Your task to perform on an android device: allow notifications from all sites in the chrome app Image 0: 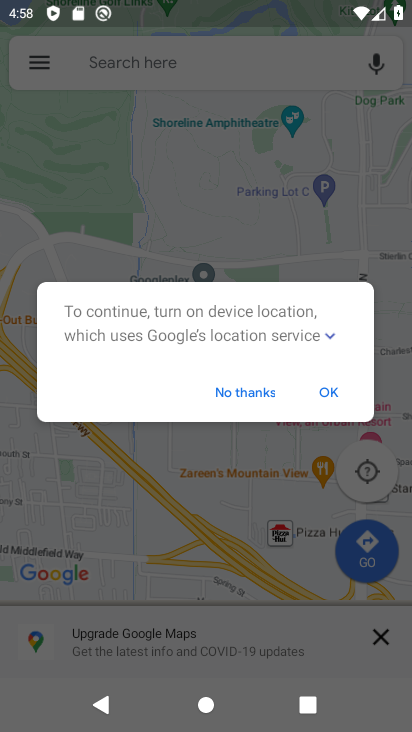
Step 0: press home button
Your task to perform on an android device: allow notifications from all sites in the chrome app Image 1: 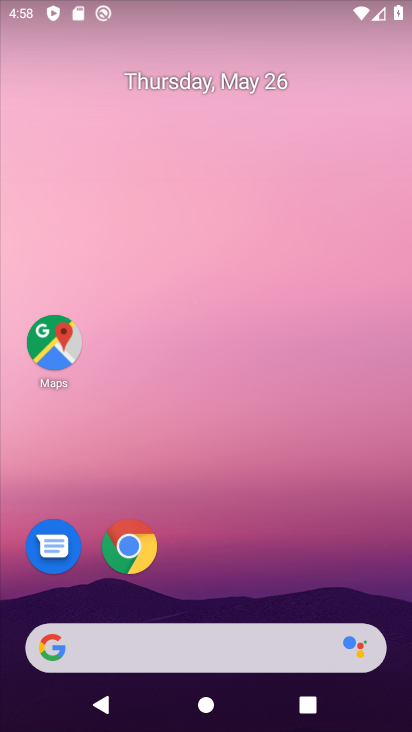
Step 1: click (141, 557)
Your task to perform on an android device: allow notifications from all sites in the chrome app Image 2: 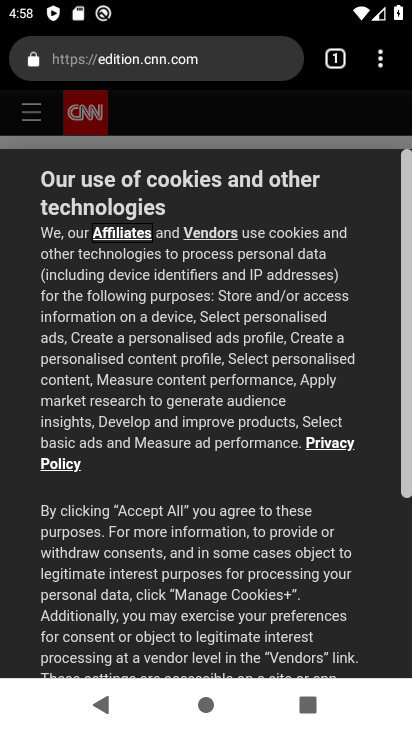
Step 2: click (391, 70)
Your task to perform on an android device: allow notifications from all sites in the chrome app Image 3: 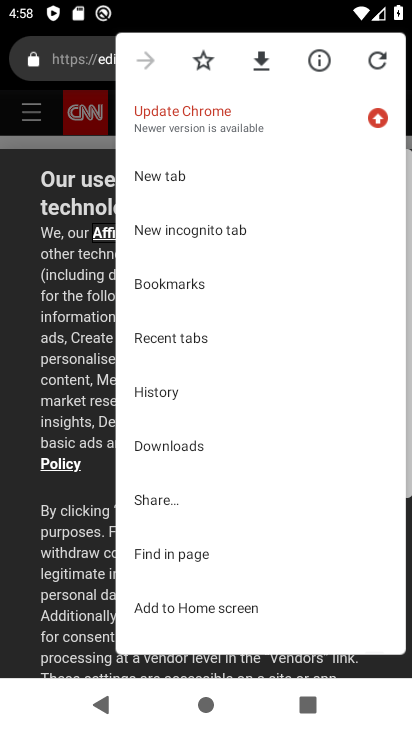
Step 3: drag from (211, 592) to (181, 218)
Your task to perform on an android device: allow notifications from all sites in the chrome app Image 4: 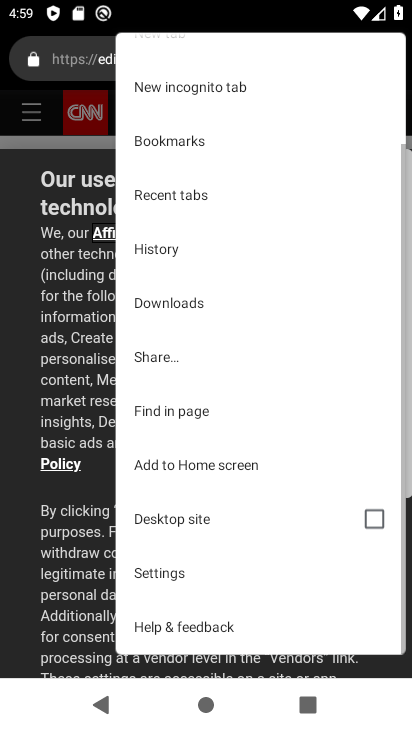
Step 4: click (170, 565)
Your task to perform on an android device: allow notifications from all sites in the chrome app Image 5: 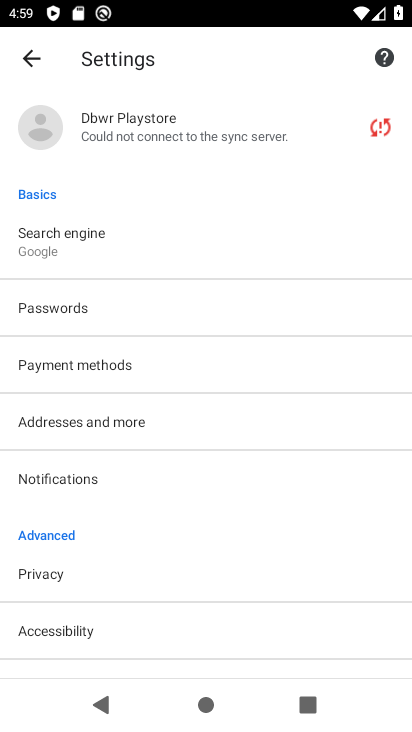
Step 5: drag from (195, 625) to (181, 196)
Your task to perform on an android device: allow notifications from all sites in the chrome app Image 6: 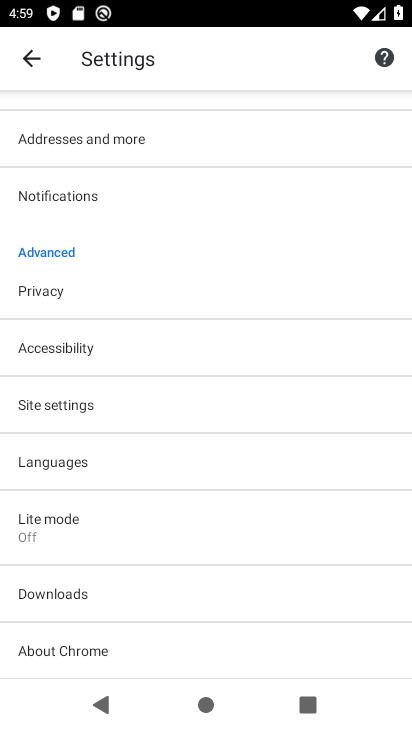
Step 6: click (145, 414)
Your task to perform on an android device: allow notifications from all sites in the chrome app Image 7: 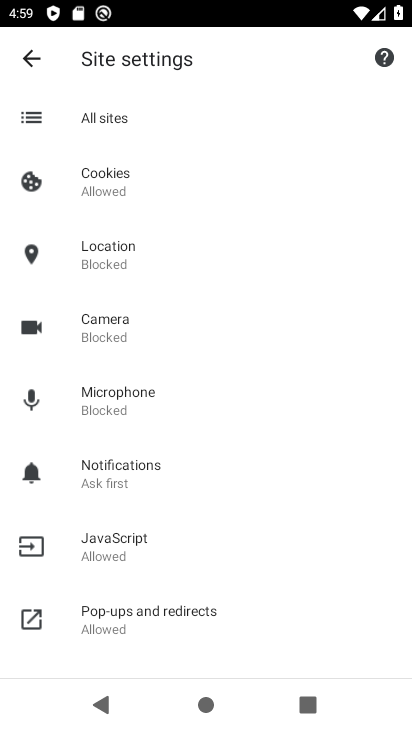
Step 7: click (162, 482)
Your task to perform on an android device: allow notifications from all sites in the chrome app Image 8: 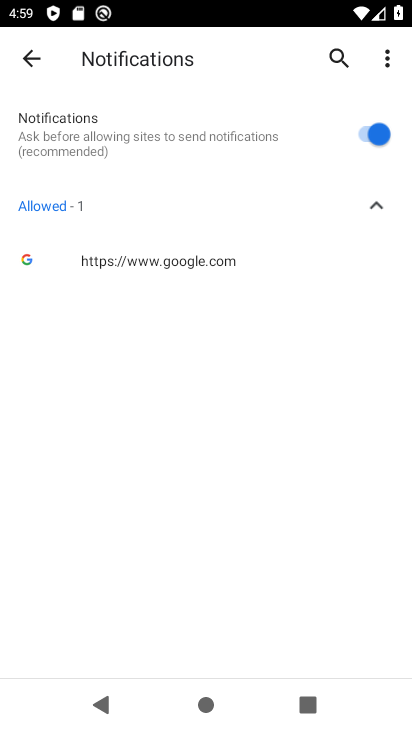
Step 8: task complete